Your task to perform on an android device: Show me popular videos on Youtube Image 0: 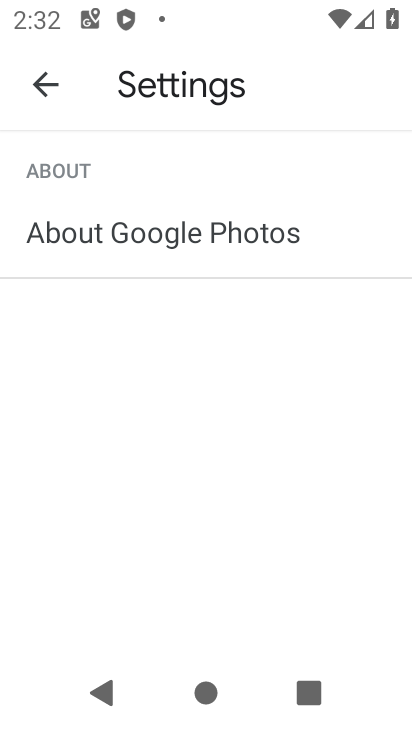
Step 0: task complete